Your task to perform on an android device: turn off notifications settings in the gmail app Image 0: 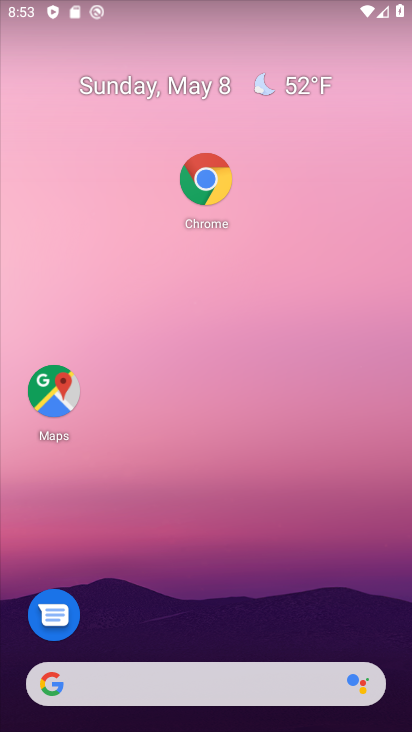
Step 0: drag from (237, 659) to (278, 290)
Your task to perform on an android device: turn off notifications settings in the gmail app Image 1: 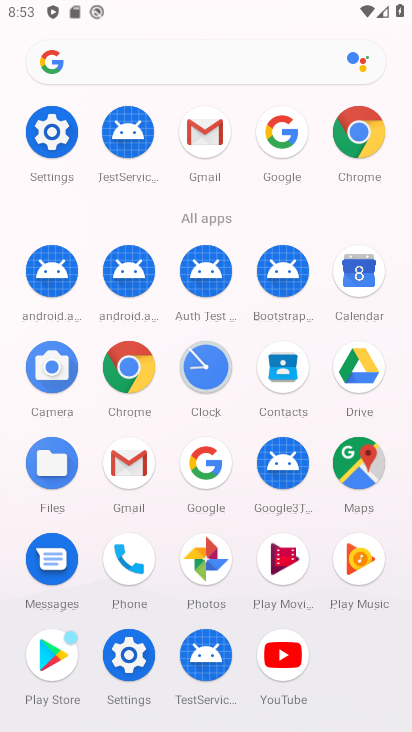
Step 1: click (119, 464)
Your task to perform on an android device: turn off notifications settings in the gmail app Image 2: 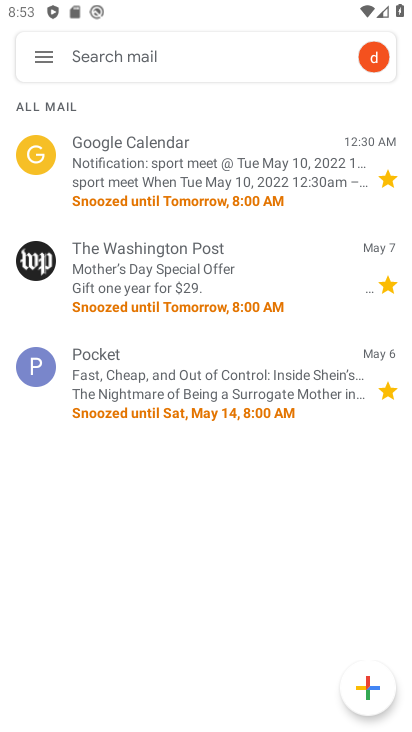
Step 2: click (44, 56)
Your task to perform on an android device: turn off notifications settings in the gmail app Image 3: 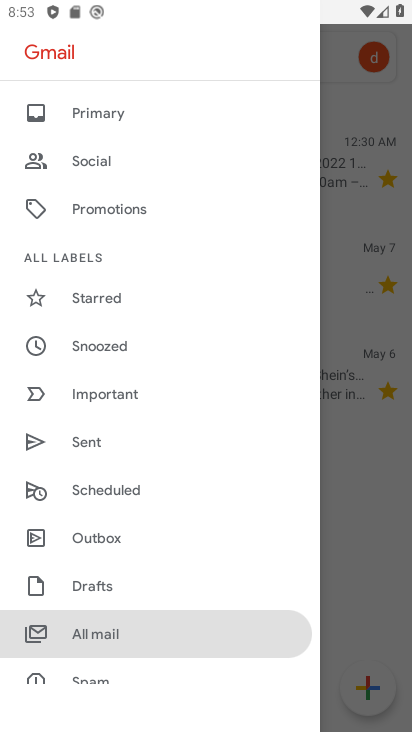
Step 3: drag from (89, 614) to (120, 309)
Your task to perform on an android device: turn off notifications settings in the gmail app Image 4: 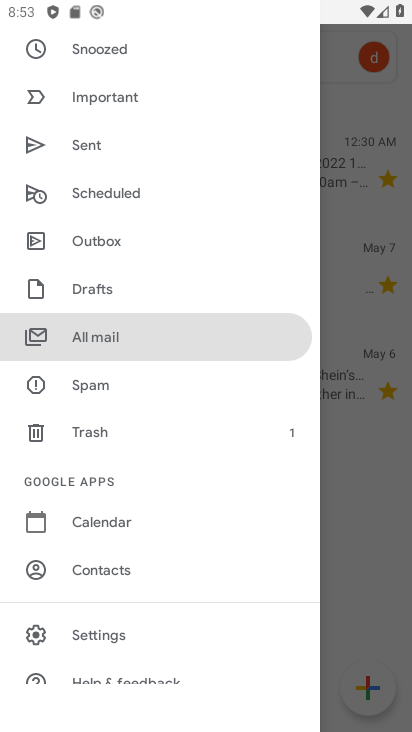
Step 4: click (86, 634)
Your task to perform on an android device: turn off notifications settings in the gmail app Image 5: 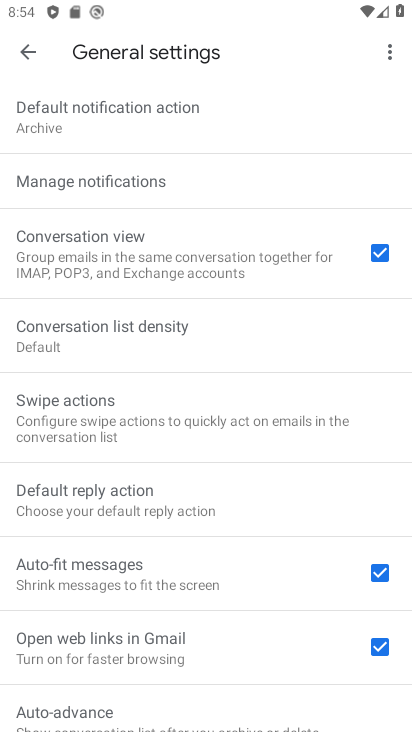
Step 5: click (79, 184)
Your task to perform on an android device: turn off notifications settings in the gmail app Image 6: 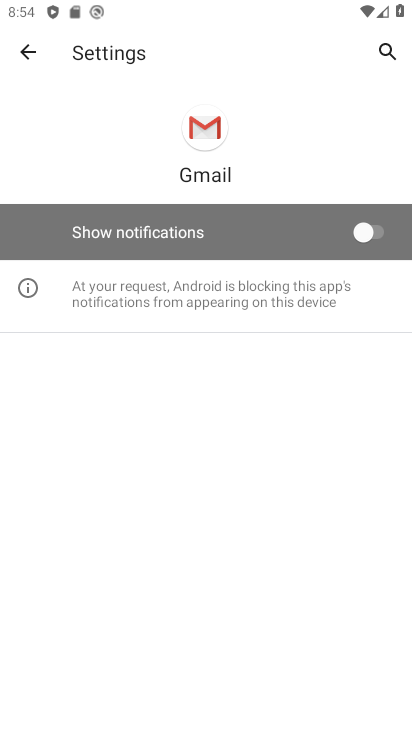
Step 6: task complete